Your task to perform on an android device: What's on my calendar today? Image 0: 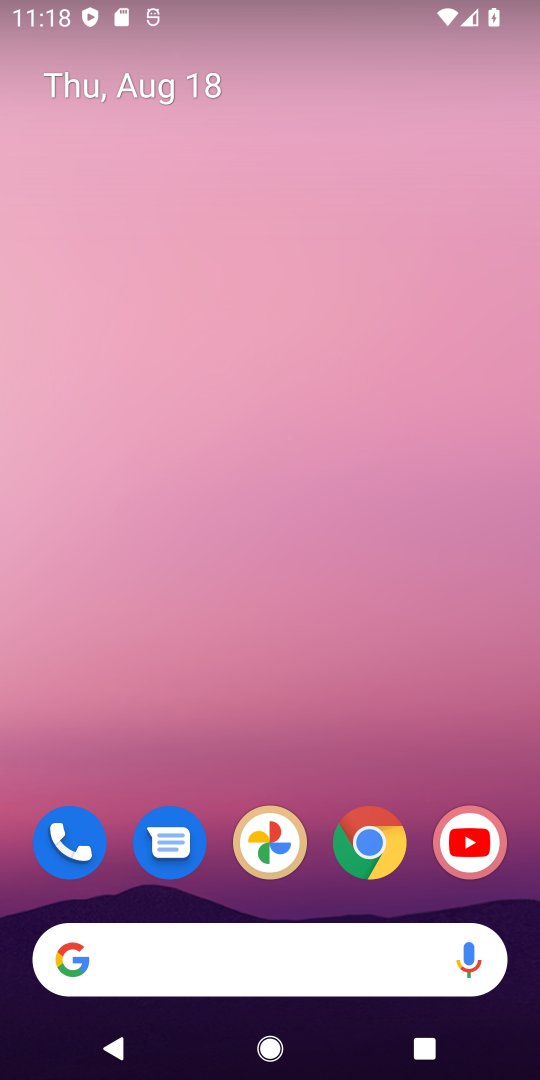
Step 0: click (141, 83)
Your task to perform on an android device: What's on my calendar today? Image 1: 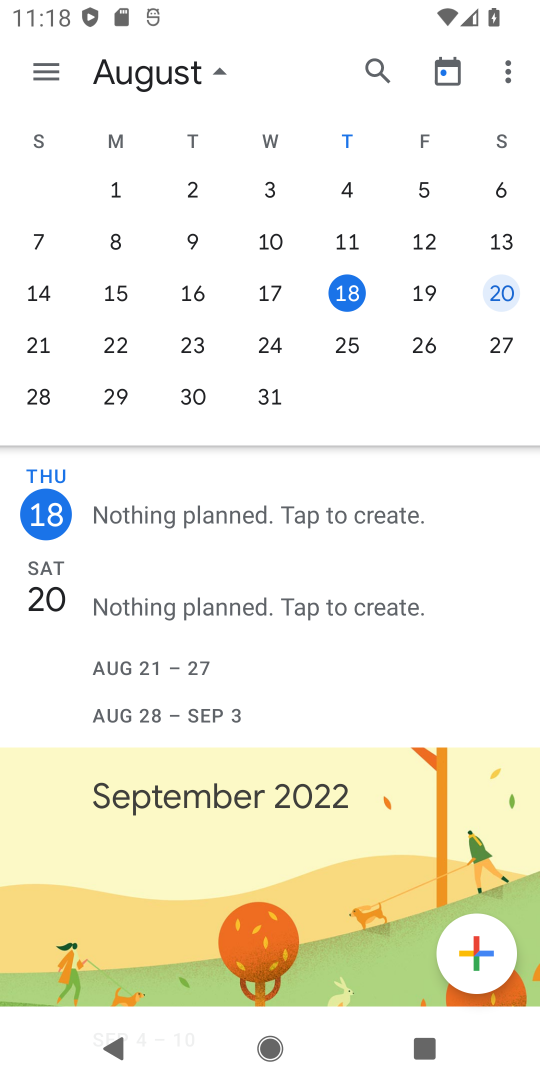
Step 1: task complete